Your task to perform on an android device: see tabs open on other devices in the chrome app Image 0: 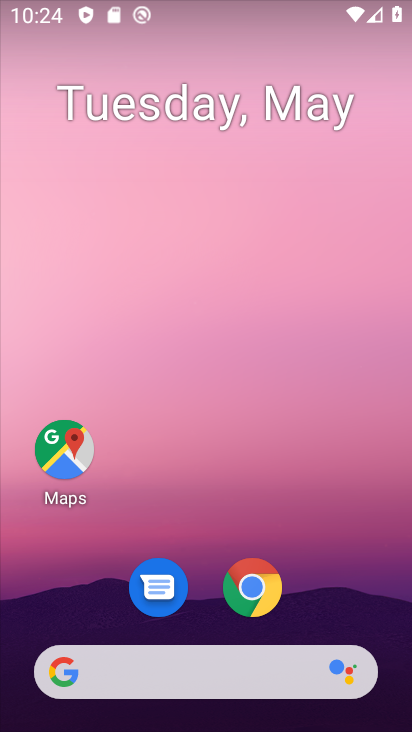
Step 0: drag from (326, 569) to (347, 149)
Your task to perform on an android device: see tabs open on other devices in the chrome app Image 1: 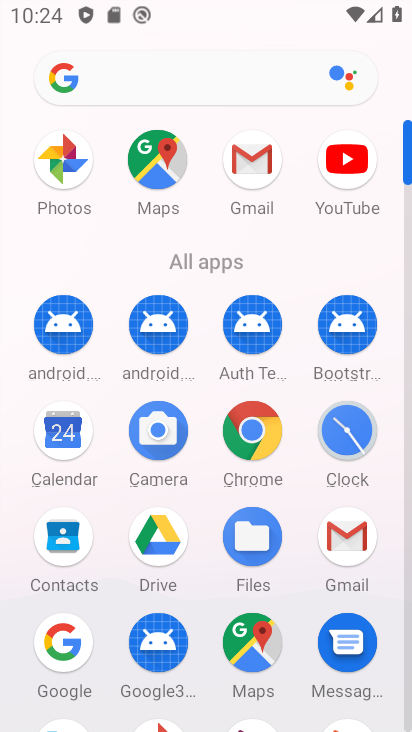
Step 1: click (245, 445)
Your task to perform on an android device: see tabs open on other devices in the chrome app Image 2: 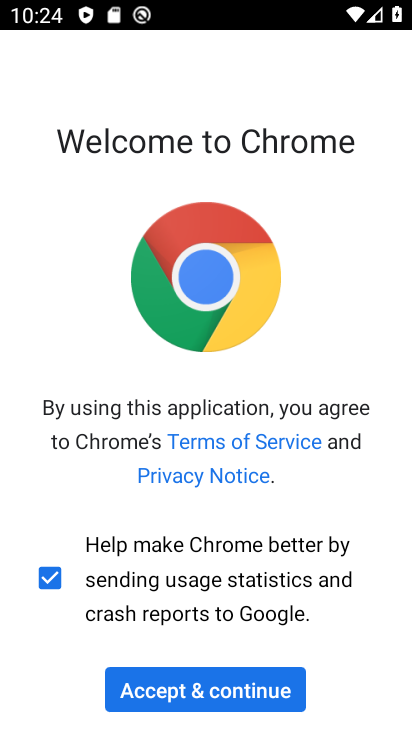
Step 2: click (230, 703)
Your task to perform on an android device: see tabs open on other devices in the chrome app Image 3: 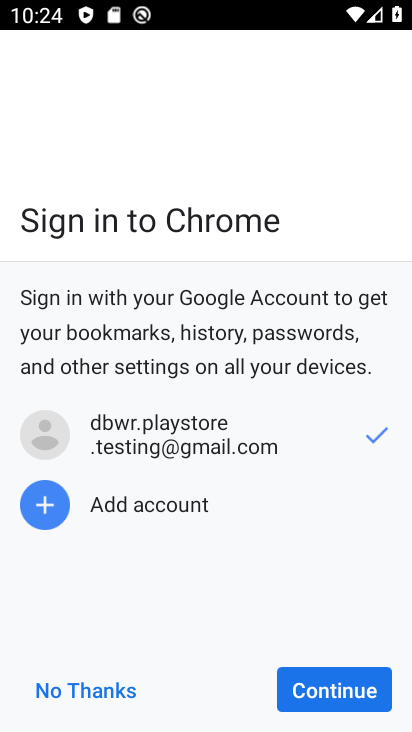
Step 3: click (332, 685)
Your task to perform on an android device: see tabs open on other devices in the chrome app Image 4: 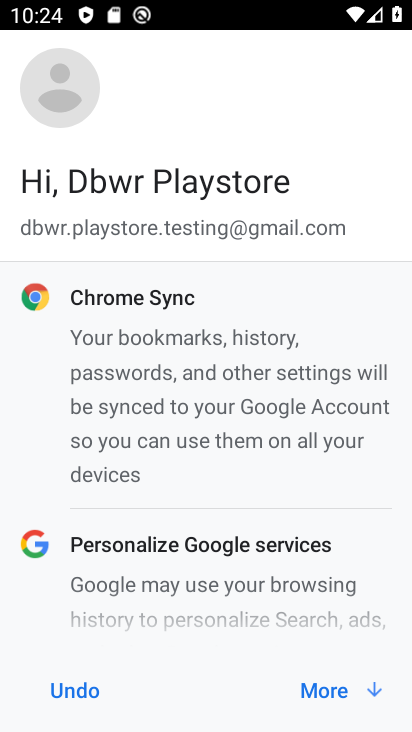
Step 4: click (333, 685)
Your task to perform on an android device: see tabs open on other devices in the chrome app Image 5: 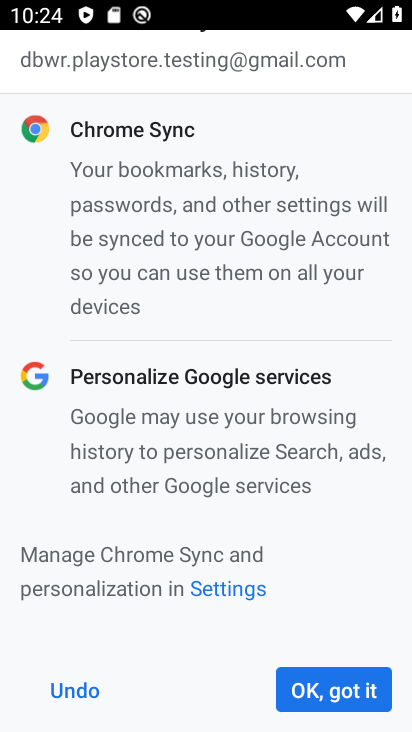
Step 5: click (332, 686)
Your task to perform on an android device: see tabs open on other devices in the chrome app Image 6: 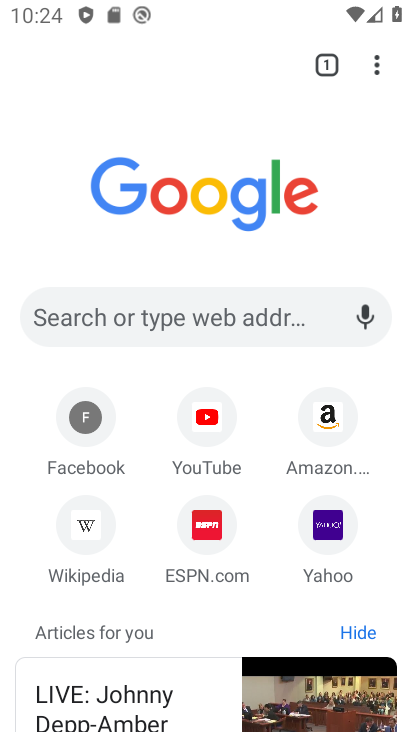
Step 6: click (326, 70)
Your task to perform on an android device: see tabs open on other devices in the chrome app Image 7: 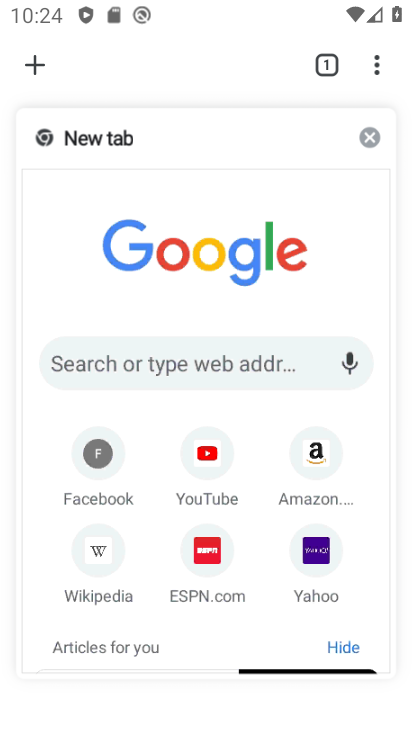
Step 7: task complete